Your task to perform on an android device: open sync settings in chrome Image 0: 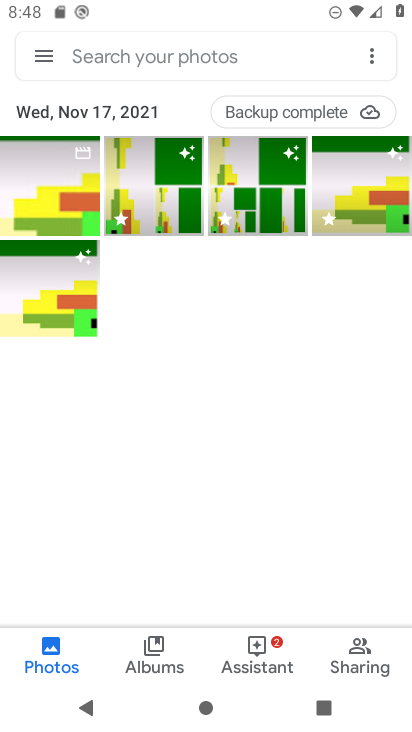
Step 0: press home button
Your task to perform on an android device: open sync settings in chrome Image 1: 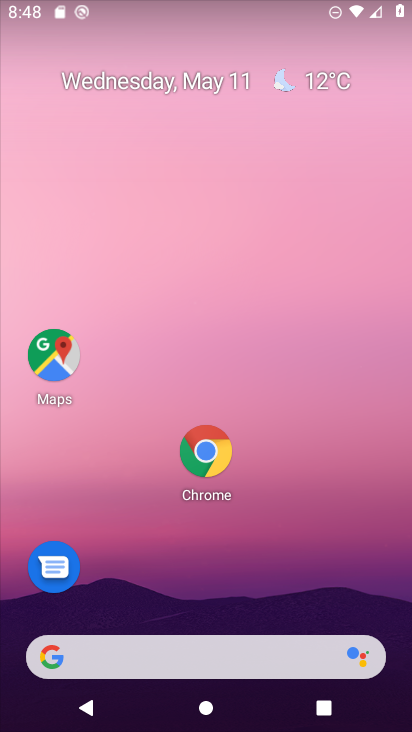
Step 1: click (204, 463)
Your task to perform on an android device: open sync settings in chrome Image 2: 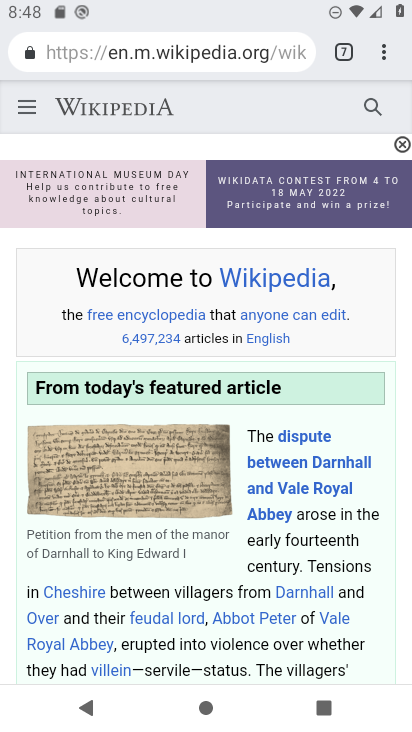
Step 2: drag from (382, 52) to (231, 624)
Your task to perform on an android device: open sync settings in chrome Image 3: 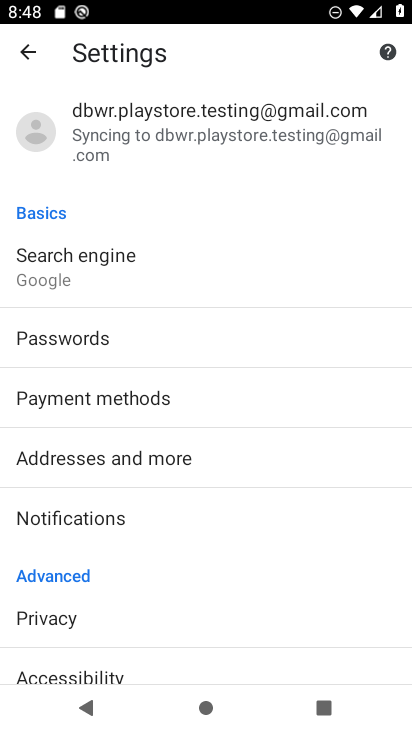
Step 3: click (166, 140)
Your task to perform on an android device: open sync settings in chrome Image 4: 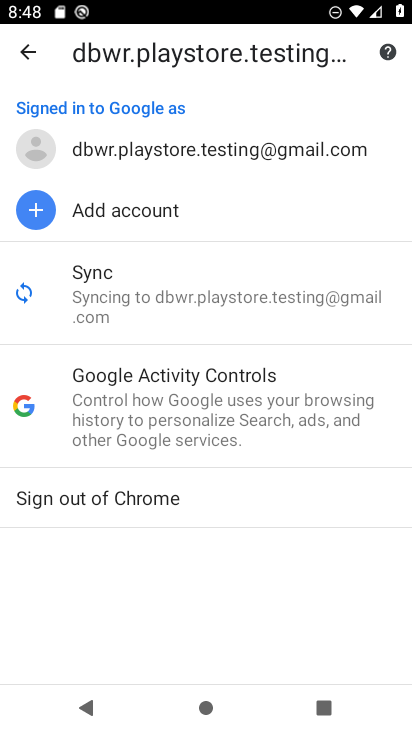
Step 4: click (136, 283)
Your task to perform on an android device: open sync settings in chrome Image 5: 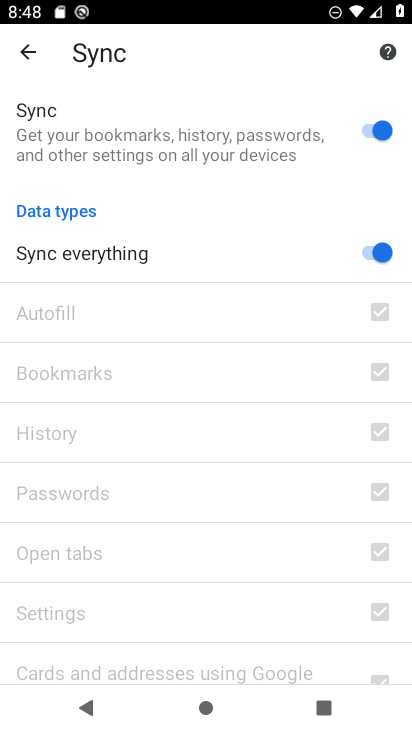
Step 5: task complete